Your task to perform on an android device: What's on my calendar tomorrow? Image 0: 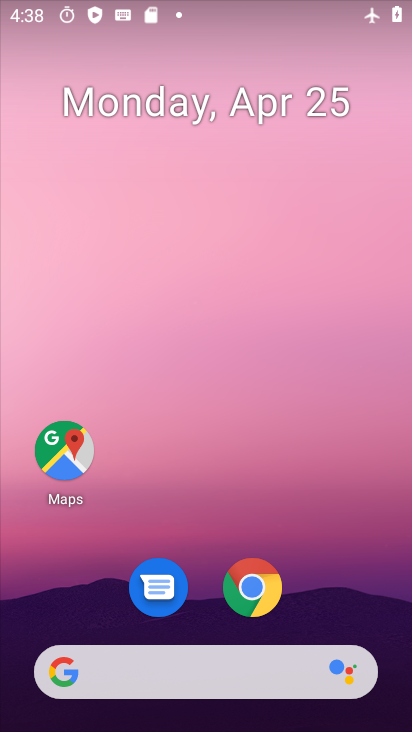
Step 0: drag from (328, 548) to (269, 53)
Your task to perform on an android device: What's on my calendar tomorrow? Image 1: 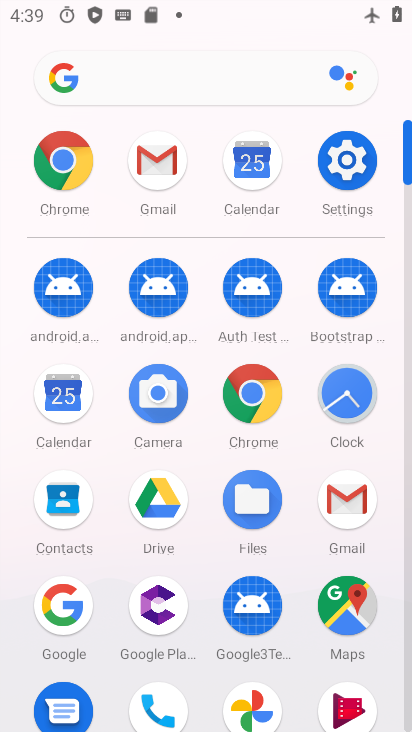
Step 1: click (69, 395)
Your task to perform on an android device: What's on my calendar tomorrow? Image 2: 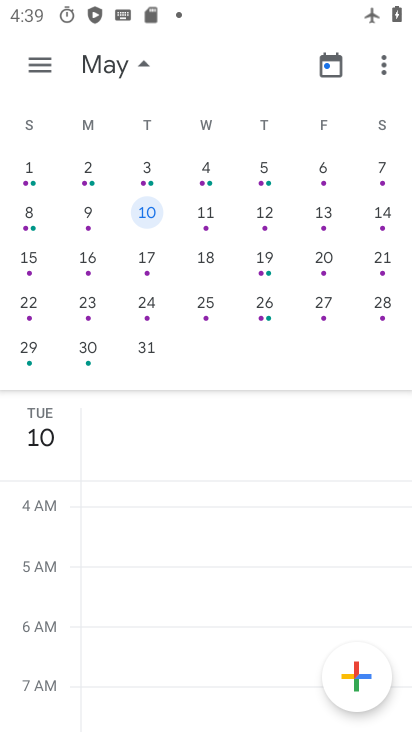
Step 2: drag from (317, 213) to (411, 288)
Your task to perform on an android device: What's on my calendar tomorrow? Image 3: 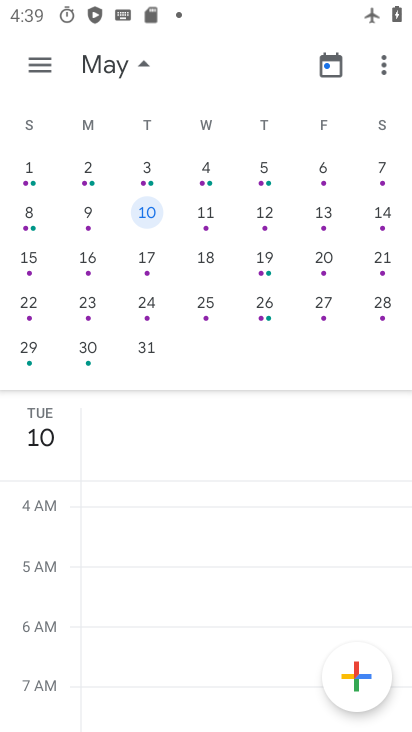
Step 3: drag from (60, 247) to (411, 291)
Your task to perform on an android device: What's on my calendar tomorrow? Image 4: 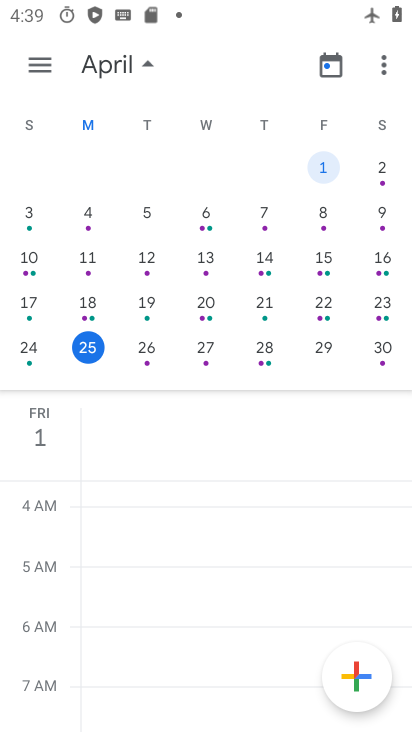
Step 4: click (148, 347)
Your task to perform on an android device: What's on my calendar tomorrow? Image 5: 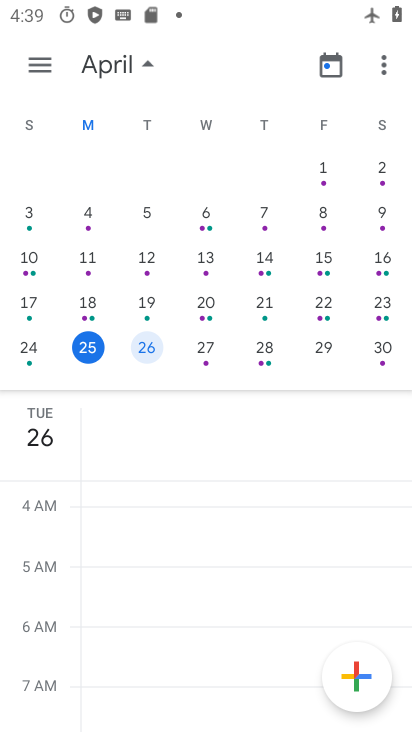
Step 5: task complete